Your task to perform on an android device: Turn on the flashlight Image 0: 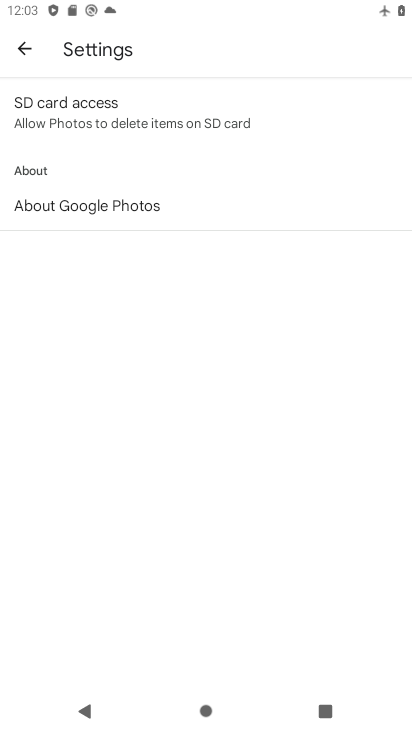
Step 0: press home button
Your task to perform on an android device: Turn on the flashlight Image 1: 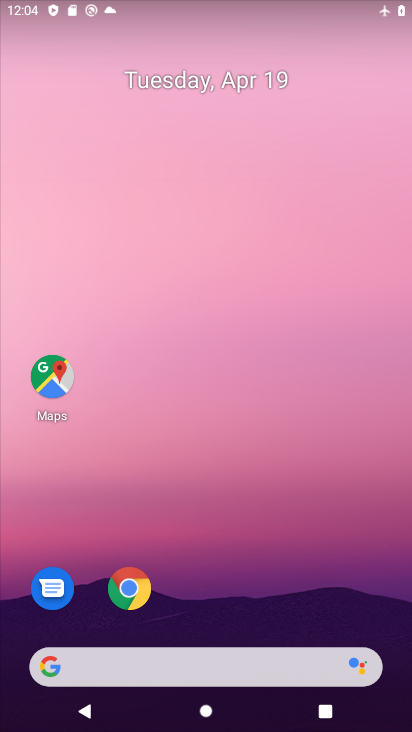
Step 1: drag from (223, 3) to (227, 475)
Your task to perform on an android device: Turn on the flashlight Image 2: 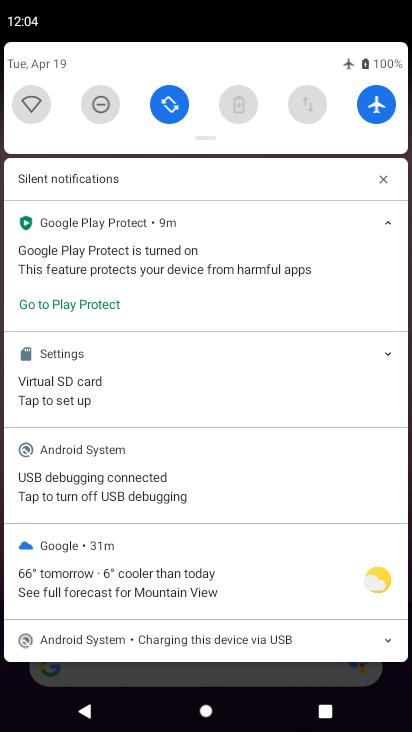
Step 2: drag from (203, 177) to (215, 510)
Your task to perform on an android device: Turn on the flashlight Image 3: 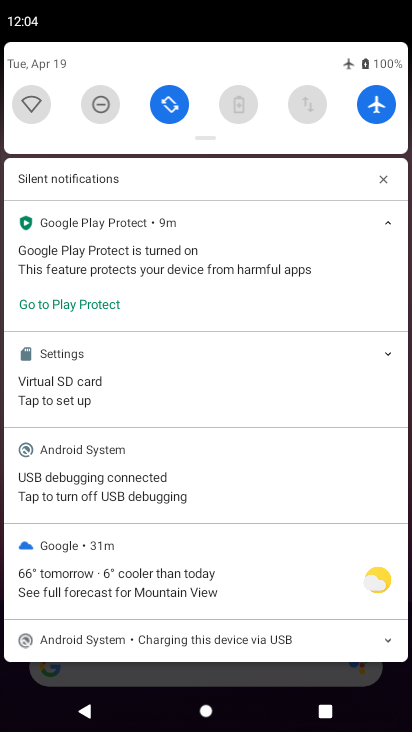
Step 3: drag from (202, 130) to (213, 441)
Your task to perform on an android device: Turn on the flashlight Image 4: 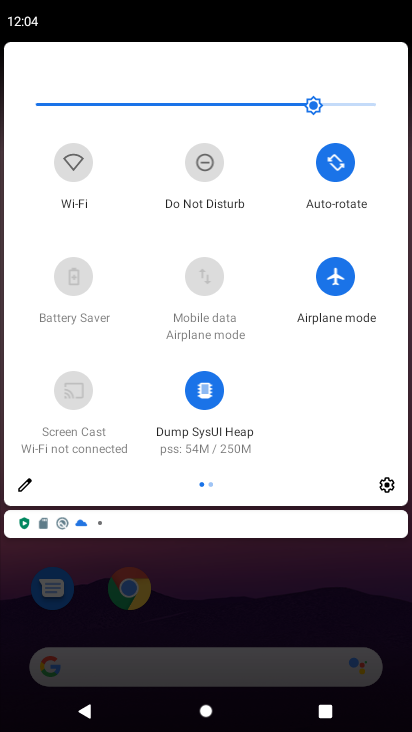
Step 4: click (25, 480)
Your task to perform on an android device: Turn on the flashlight Image 5: 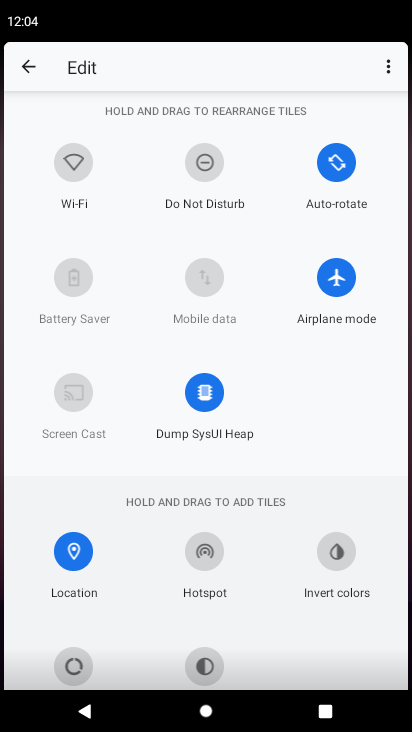
Step 5: task complete